Your task to perform on an android device: open a new tab in the chrome app Image 0: 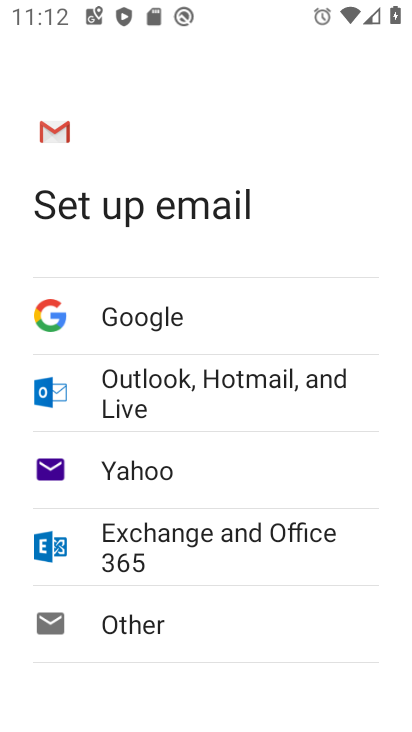
Step 0: press back button
Your task to perform on an android device: open a new tab in the chrome app Image 1: 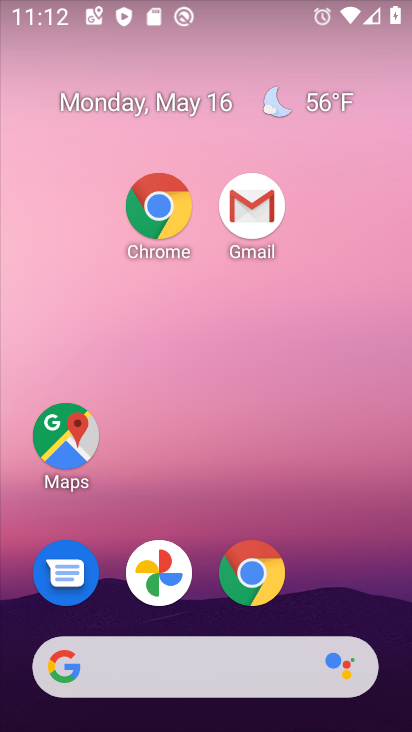
Step 1: drag from (366, 641) to (255, 46)
Your task to perform on an android device: open a new tab in the chrome app Image 2: 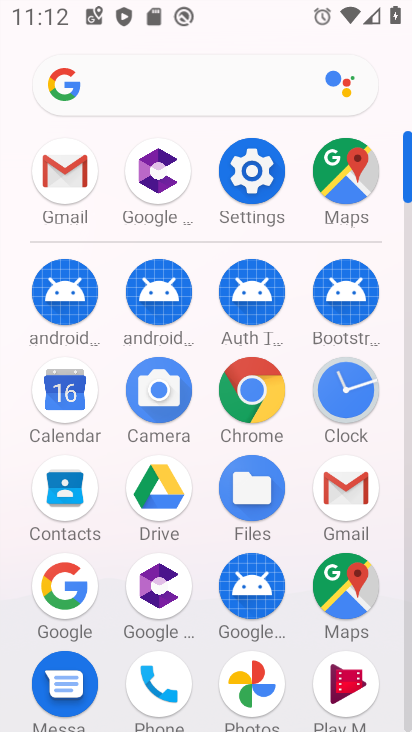
Step 2: click (254, 390)
Your task to perform on an android device: open a new tab in the chrome app Image 3: 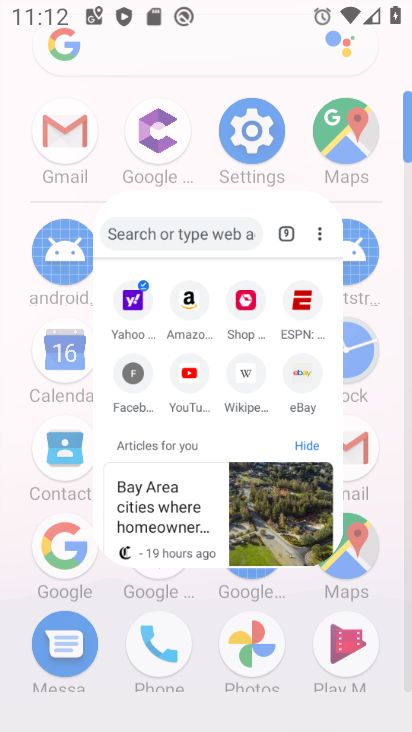
Step 3: click (246, 386)
Your task to perform on an android device: open a new tab in the chrome app Image 4: 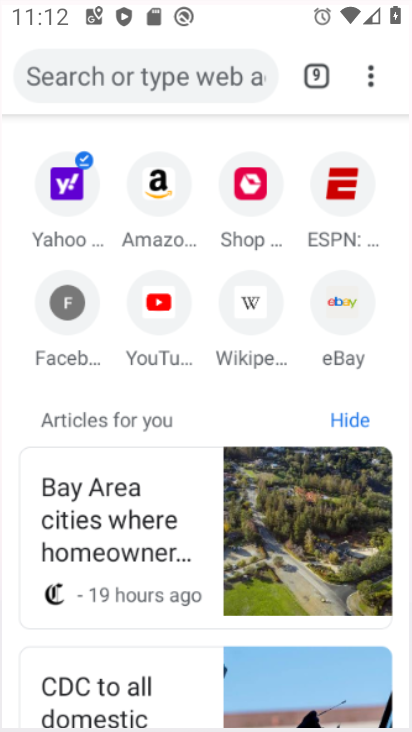
Step 4: click (244, 382)
Your task to perform on an android device: open a new tab in the chrome app Image 5: 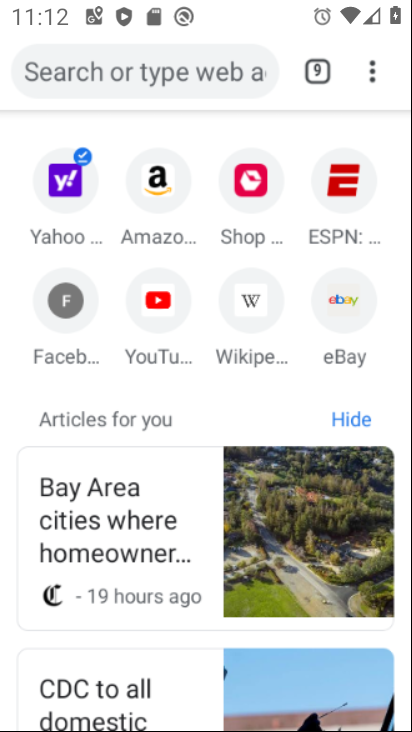
Step 5: click (244, 382)
Your task to perform on an android device: open a new tab in the chrome app Image 6: 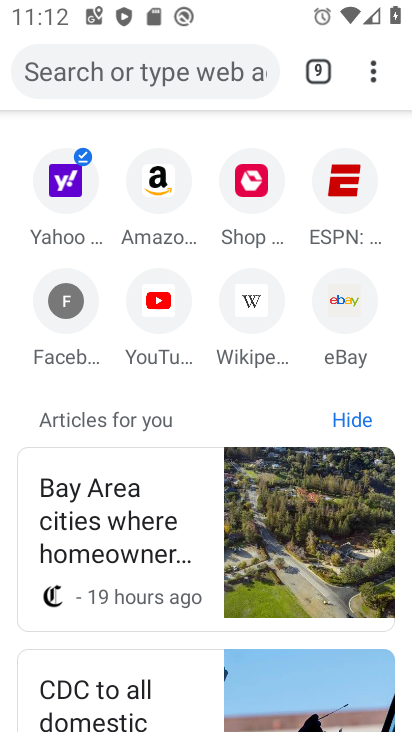
Step 6: task complete